Your task to perform on an android device: open app "Pandora - Music & Podcasts" (install if not already installed) and go to login screen Image 0: 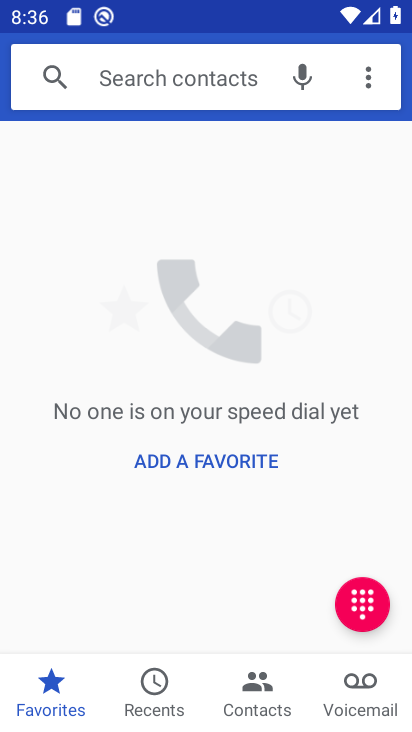
Step 0: press home button
Your task to perform on an android device: open app "Pandora - Music & Podcasts" (install if not already installed) and go to login screen Image 1: 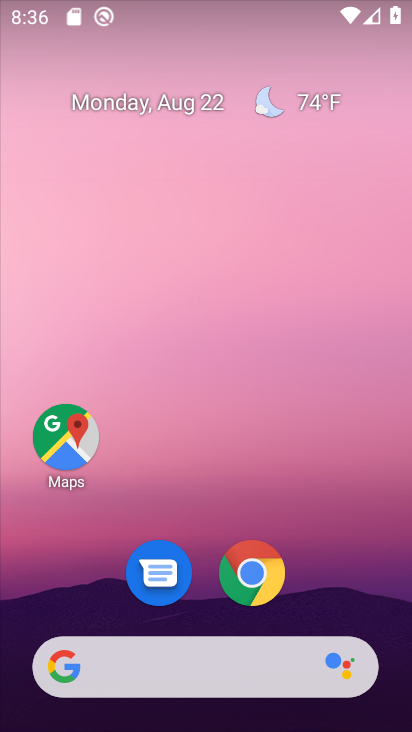
Step 1: drag from (208, 606) to (254, 251)
Your task to perform on an android device: open app "Pandora - Music & Podcasts" (install if not already installed) and go to login screen Image 2: 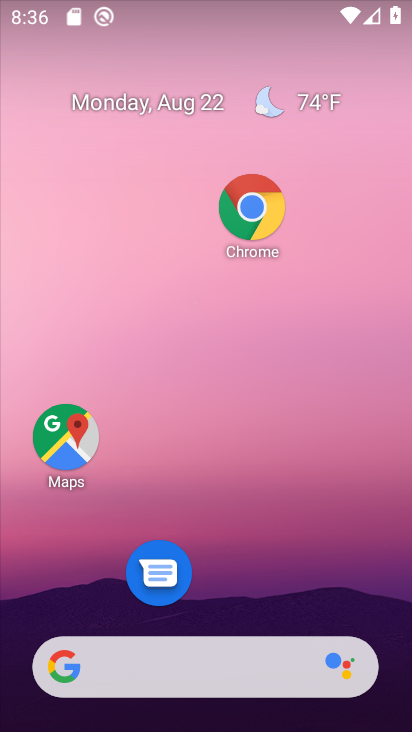
Step 2: drag from (233, 593) to (259, 296)
Your task to perform on an android device: open app "Pandora - Music & Podcasts" (install if not already installed) and go to login screen Image 3: 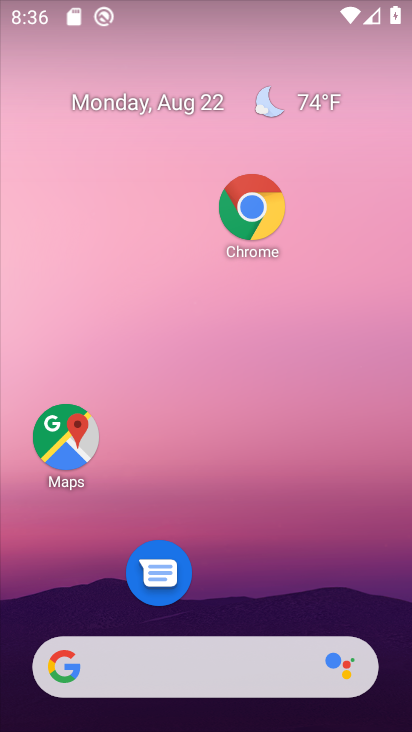
Step 3: drag from (233, 613) to (265, 235)
Your task to perform on an android device: open app "Pandora - Music & Podcasts" (install if not already installed) and go to login screen Image 4: 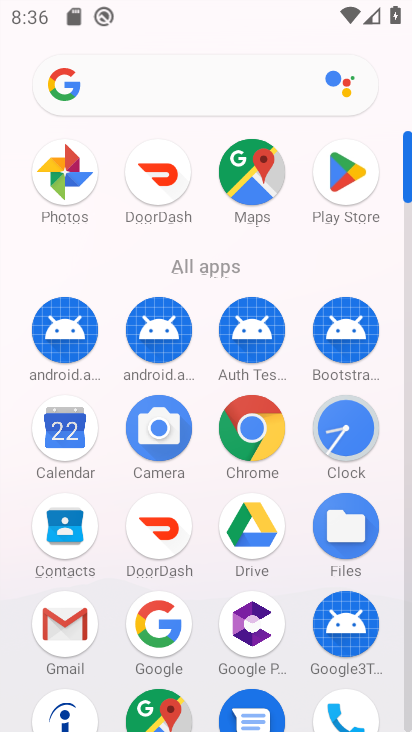
Step 4: click (343, 199)
Your task to perform on an android device: open app "Pandora - Music & Podcasts" (install if not already installed) and go to login screen Image 5: 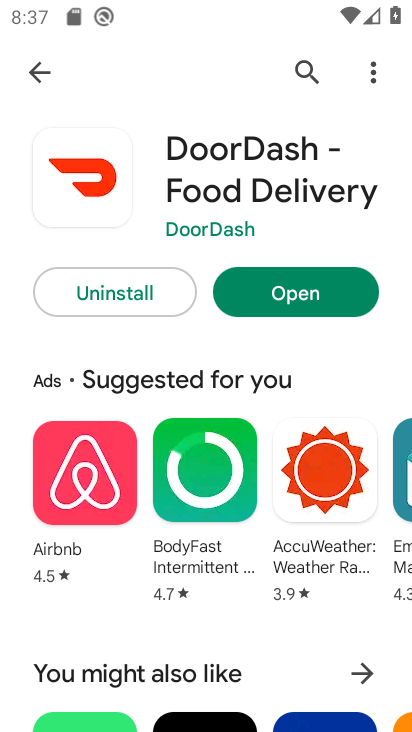
Step 5: click (25, 75)
Your task to perform on an android device: open app "Pandora - Music & Podcasts" (install if not already installed) and go to login screen Image 6: 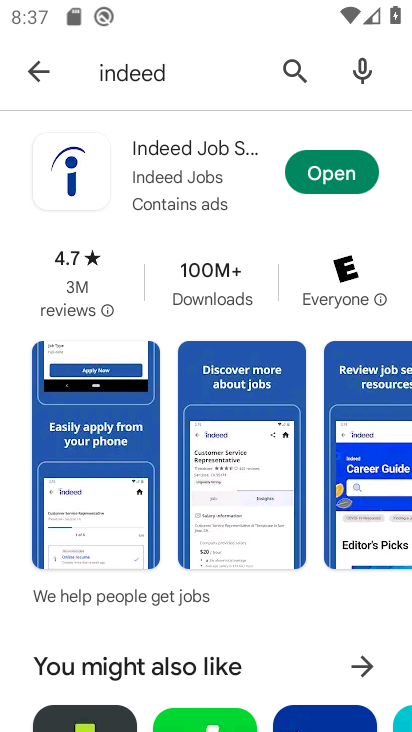
Step 6: click (169, 67)
Your task to perform on an android device: open app "Pandora - Music & Podcasts" (install if not already installed) and go to login screen Image 7: 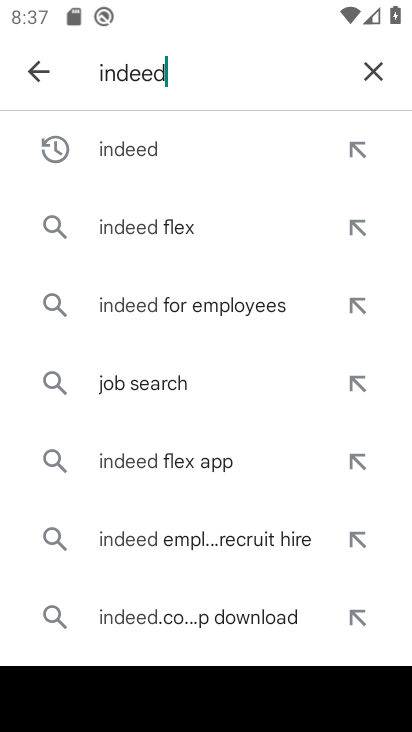
Step 7: click (378, 67)
Your task to perform on an android device: open app "Pandora - Music & Podcasts" (install if not already installed) and go to login screen Image 8: 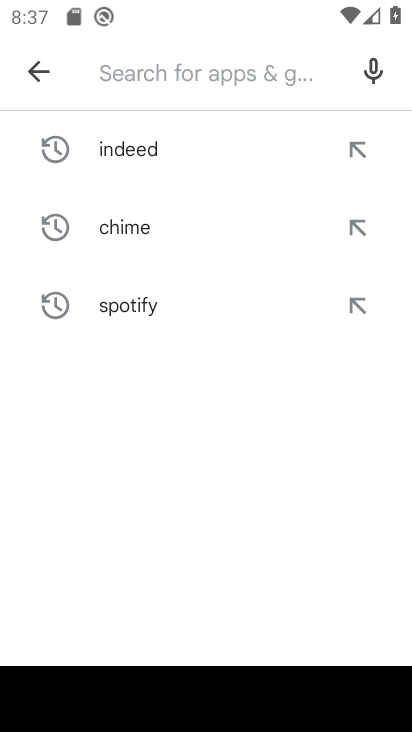
Step 8: type "Pandora"
Your task to perform on an android device: open app "Pandora - Music & Podcasts" (install if not already installed) and go to login screen Image 9: 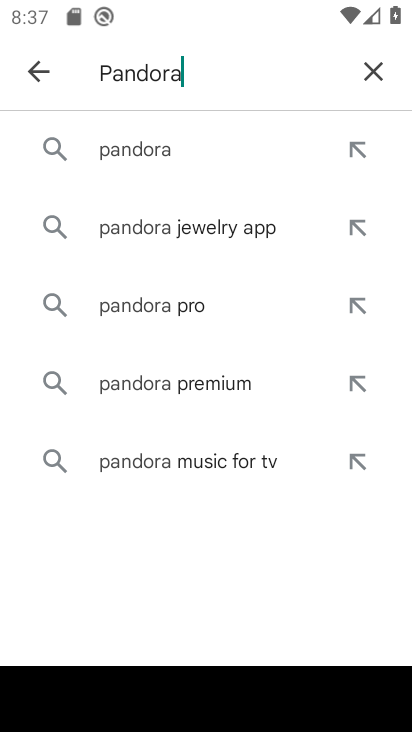
Step 9: click (145, 141)
Your task to perform on an android device: open app "Pandora - Music & Podcasts" (install if not already installed) and go to login screen Image 10: 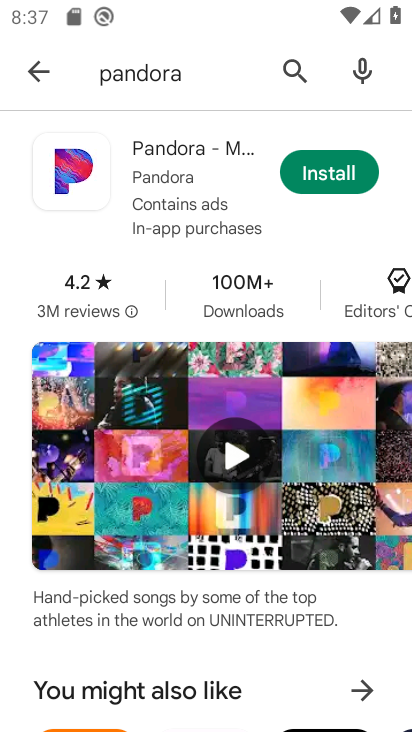
Step 10: click (346, 178)
Your task to perform on an android device: open app "Pandora - Music & Podcasts" (install if not already installed) and go to login screen Image 11: 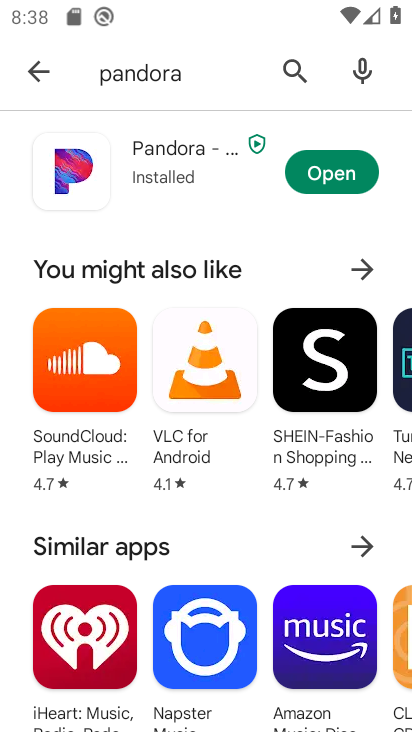
Step 11: click (341, 183)
Your task to perform on an android device: open app "Pandora - Music & Podcasts" (install if not already installed) and go to login screen Image 12: 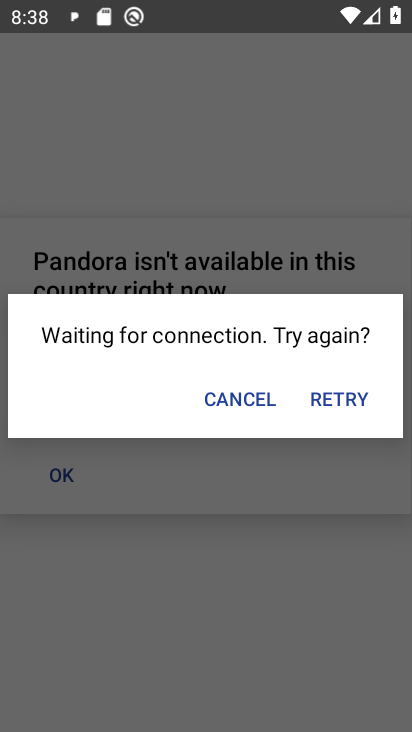
Step 12: task complete